Your task to perform on an android device: turn on airplane mode Image 0: 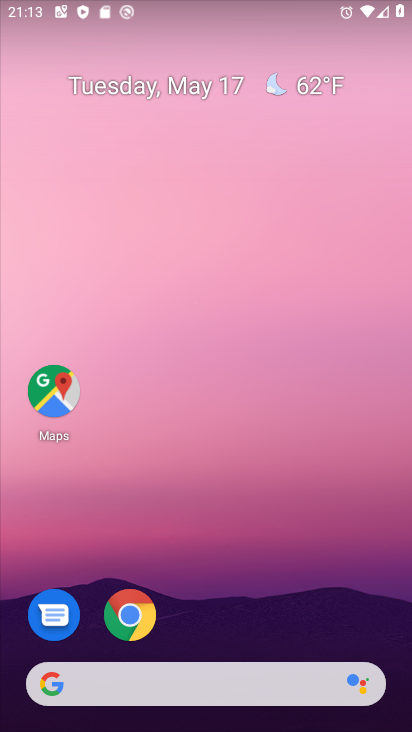
Step 0: drag from (285, 18) to (257, 308)
Your task to perform on an android device: turn on airplane mode Image 1: 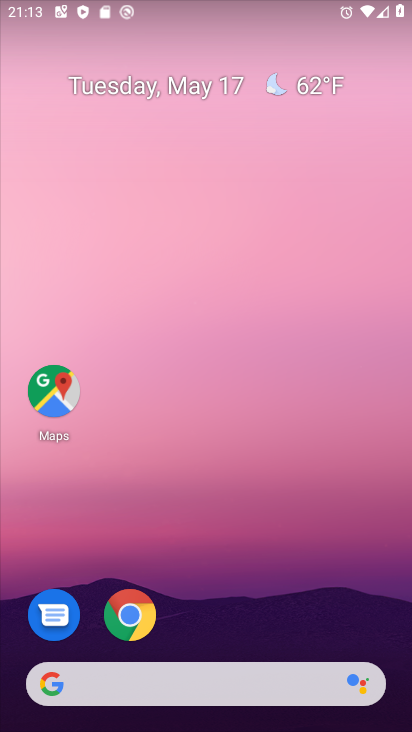
Step 1: drag from (336, 15) to (314, 414)
Your task to perform on an android device: turn on airplane mode Image 2: 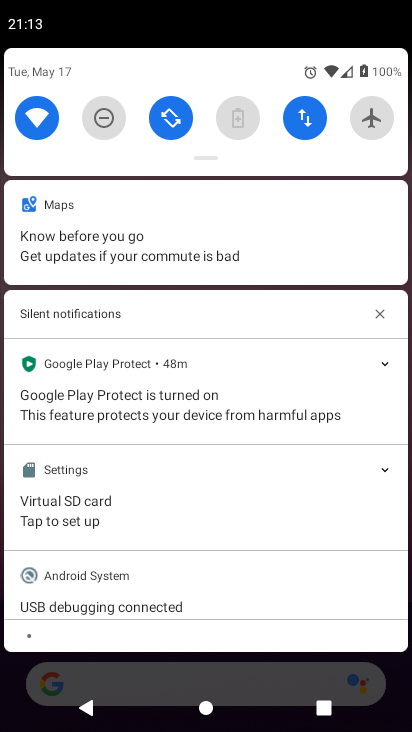
Step 2: drag from (341, 152) to (334, 455)
Your task to perform on an android device: turn on airplane mode Image 3: 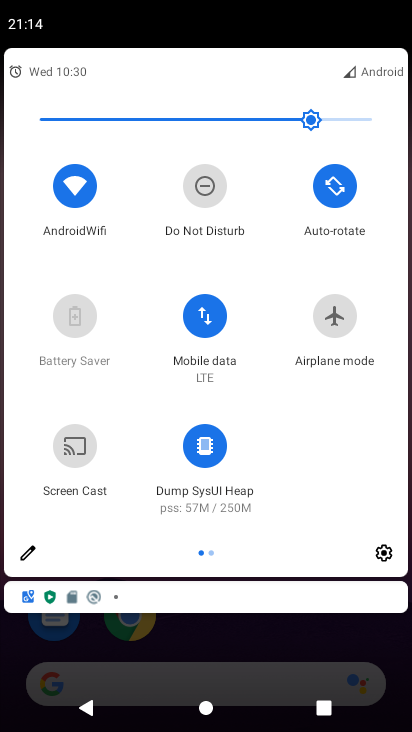
Step 3: click (331, 311)
Your task to perform on an android device: turn on airplane mode Image 4: 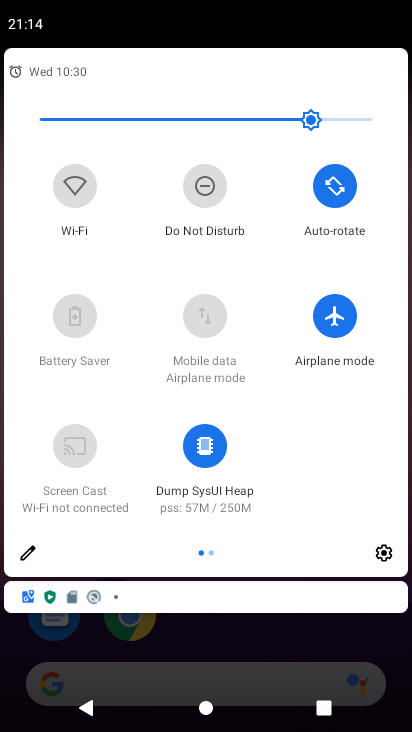
Step 4: task complete